Your task to perform on an android device: Is it going to rain today? Image 0: 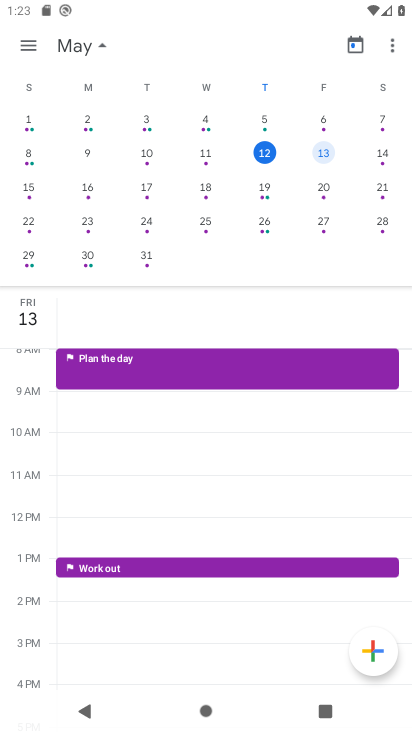
Step 0: press home button
Your task to perform on an android device: Is it going to rain today? Image 1: 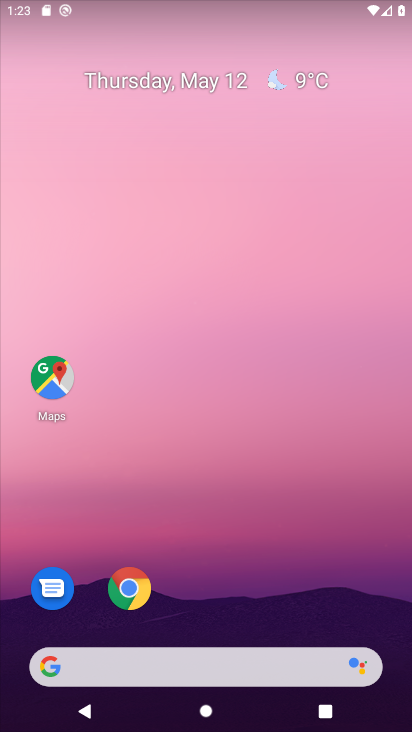
Step 1: click (312, 78)
Your task to perform on an android device: Is it going to rain today? Image 2: 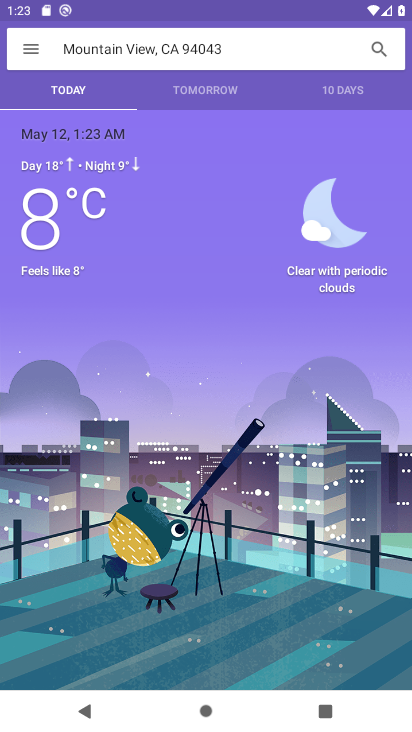
Step 2: task complete